Your task to perform on an android device: Go to location settings Image 0: 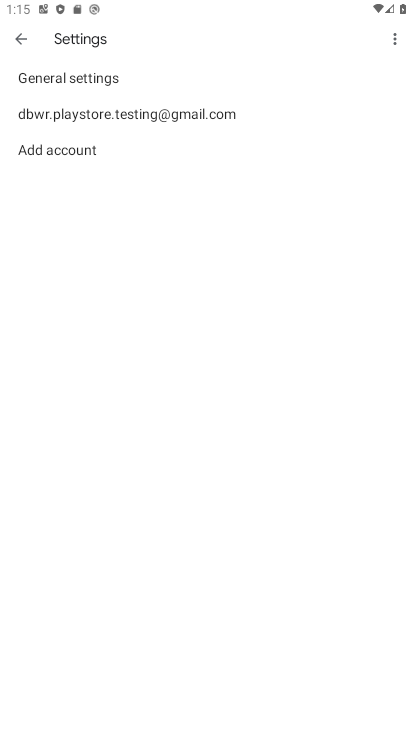
Step 0: press home button
Your task to perform on an android device: Go to location settings Image 1: 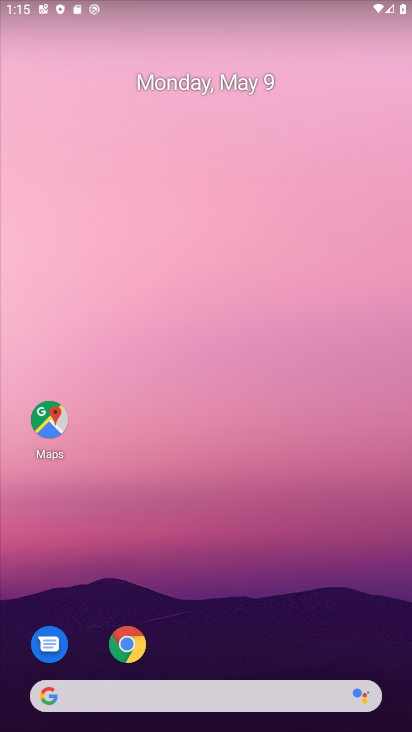
Step 1: drag from (199, 573) to (395, 16)
Your task to perform on an android device: Go to location settings Image 2: 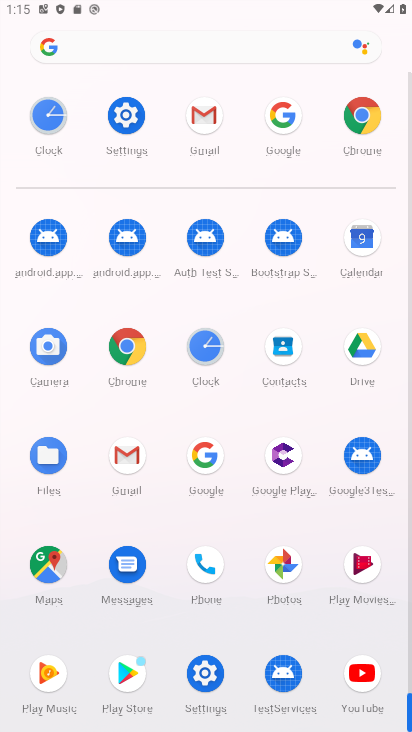
Step 2: click (123, 139)
Your task to perform on an android device: Go to location settings Image 3: 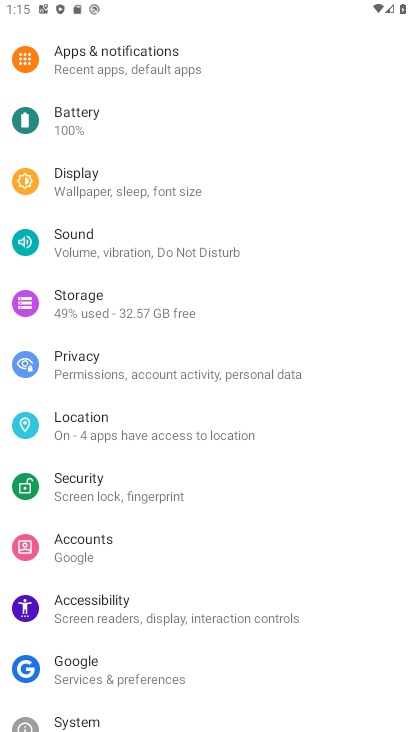
Step 3: click (105, 449)
Your task to perform on an android device: Go to location settings Image 4: 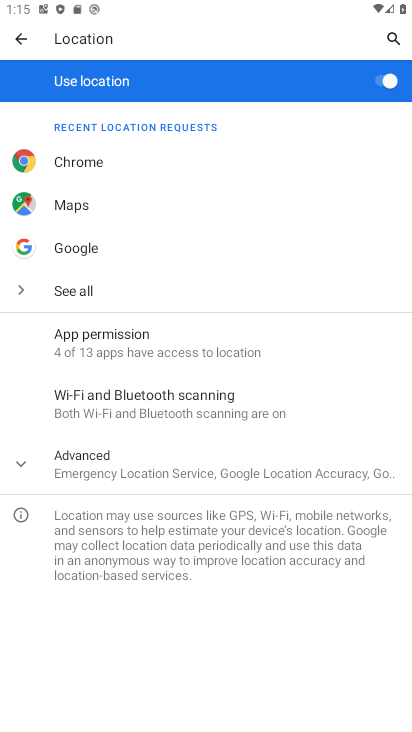
Step 4: drag from (266, 226) to (240, 557)
Your task to perform on an android device: Go to location settings Image 5: 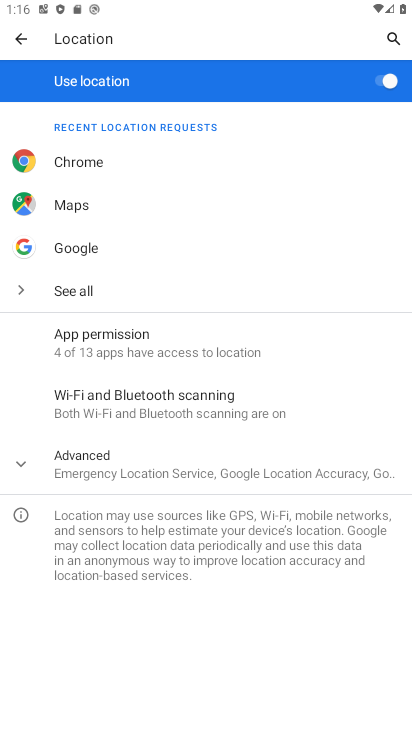
Step 5: click (61, 473)
Your task to perform on an android device: Go to location settings Image 6: 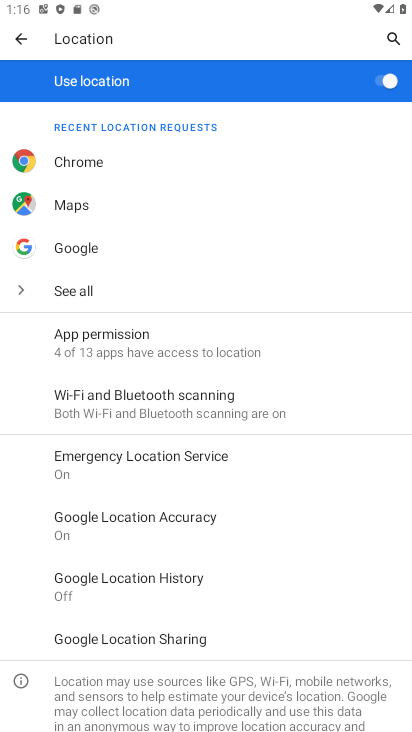
Step 6: task complete